Your task to perform on an android device: uninstall "Grab" Image 0: 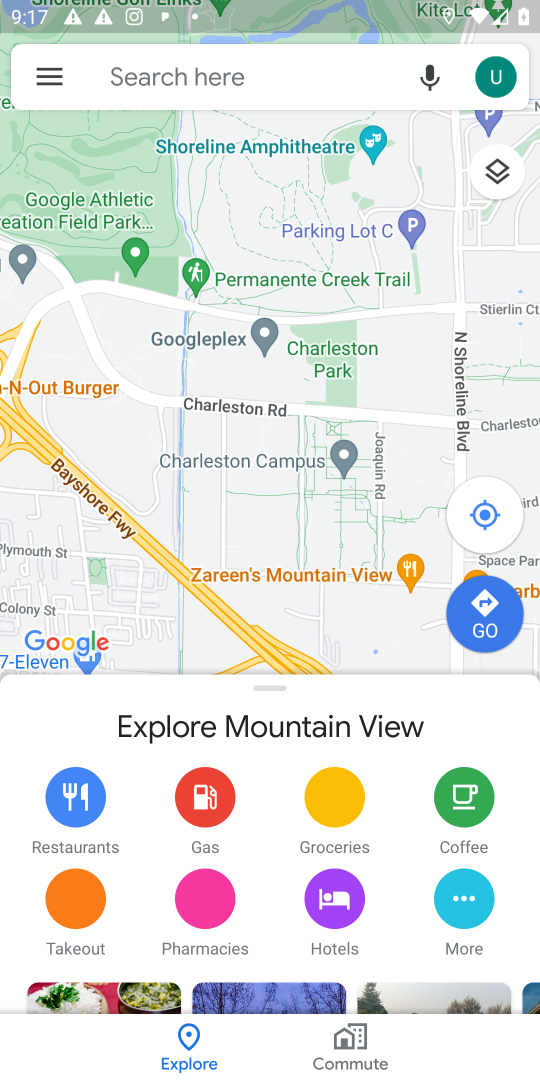
Step 0: press home button
Your task to perform on an android device: uninstall "Grab" Image 1: 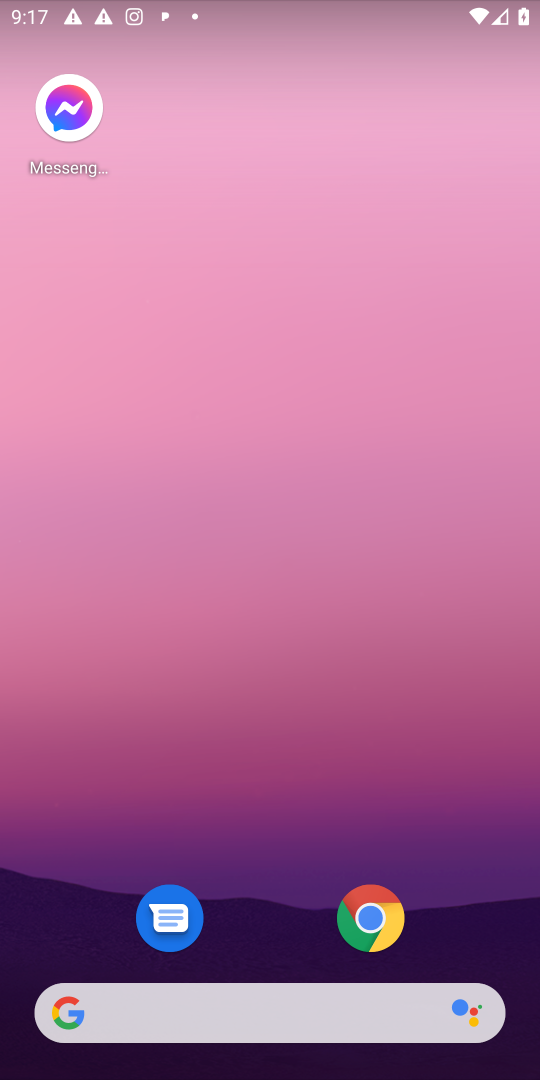
Step 1: press home button
Your task to perform on an android device: uninstall "Grab" Image 2: 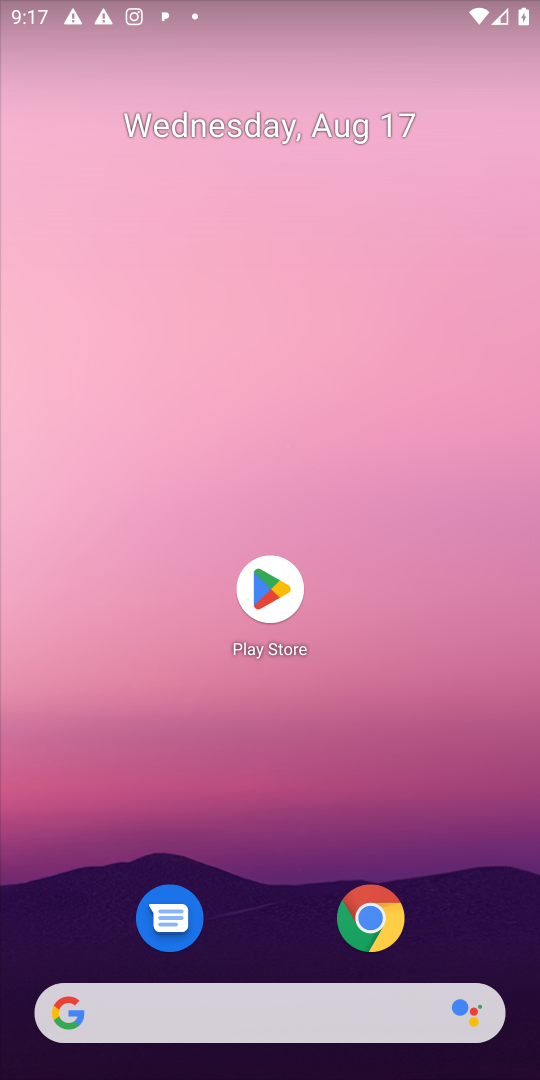
Step 2: click (273, 593)
Your task to perform on an android device: uninstall "Grab" Image 3: 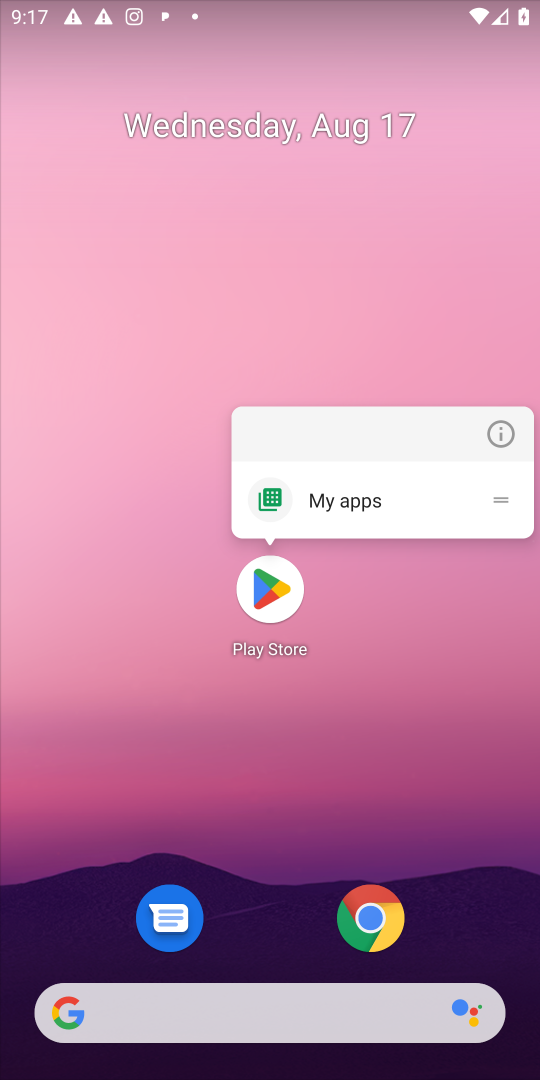
Step 3: click (263, 593)
Your task to perform on an android device: uninstall "Grab" Image 4: 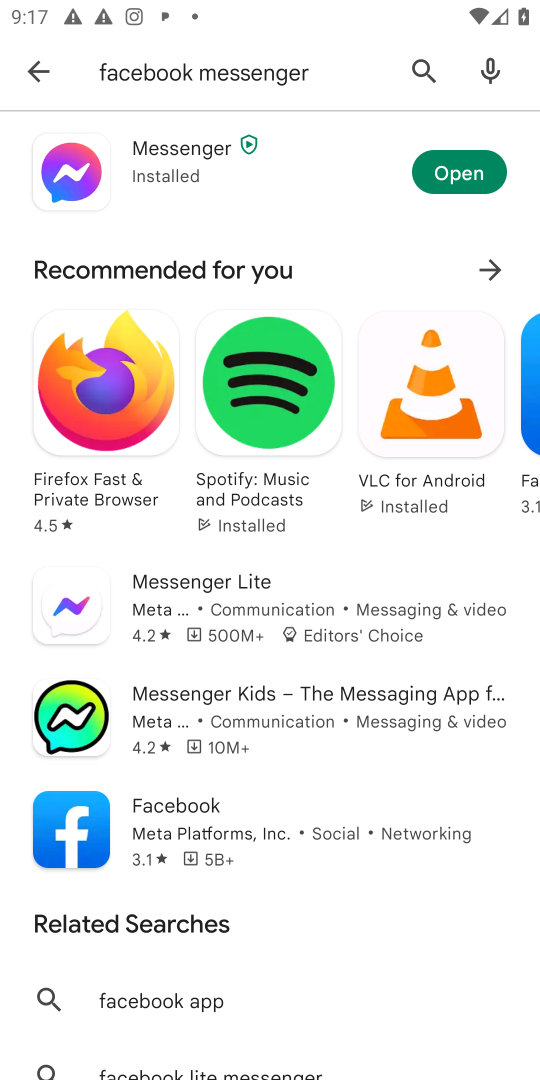
Step 4: click (419, 71)
Your task to perform on an android device: uninstall "Grab" Image 5: 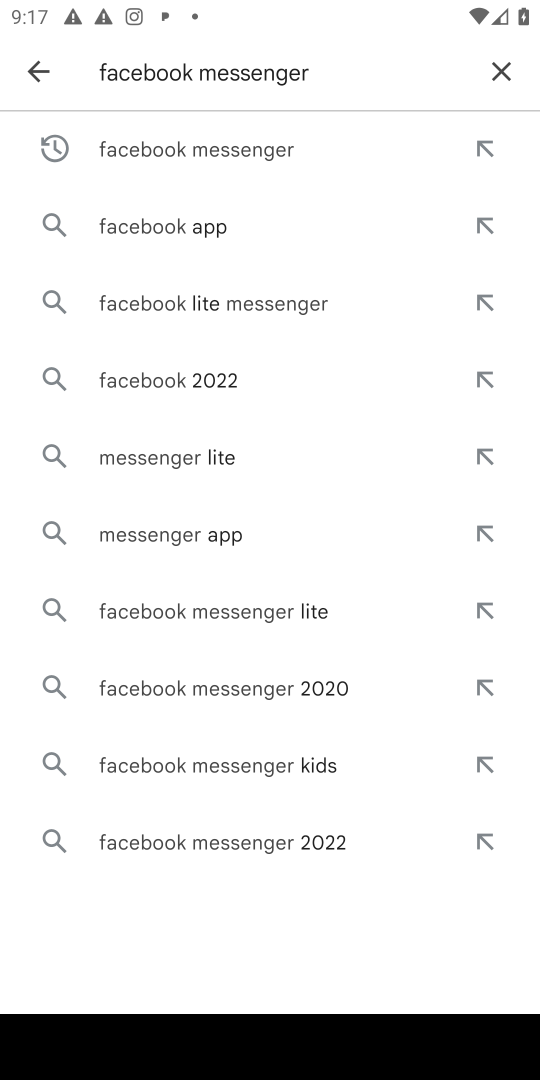
Step 5: click (498, 74)
Your task to perform on an android device: uninstall "Grab" Image 6: 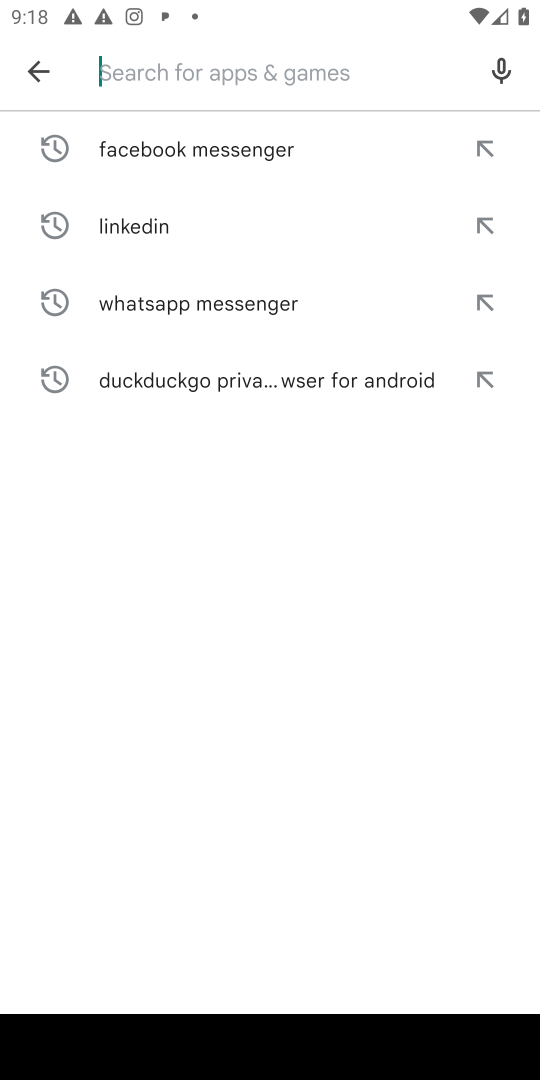
Step 6: type "Grab"
Your task to perform on an android device: uninstall "Grab" Image 7: 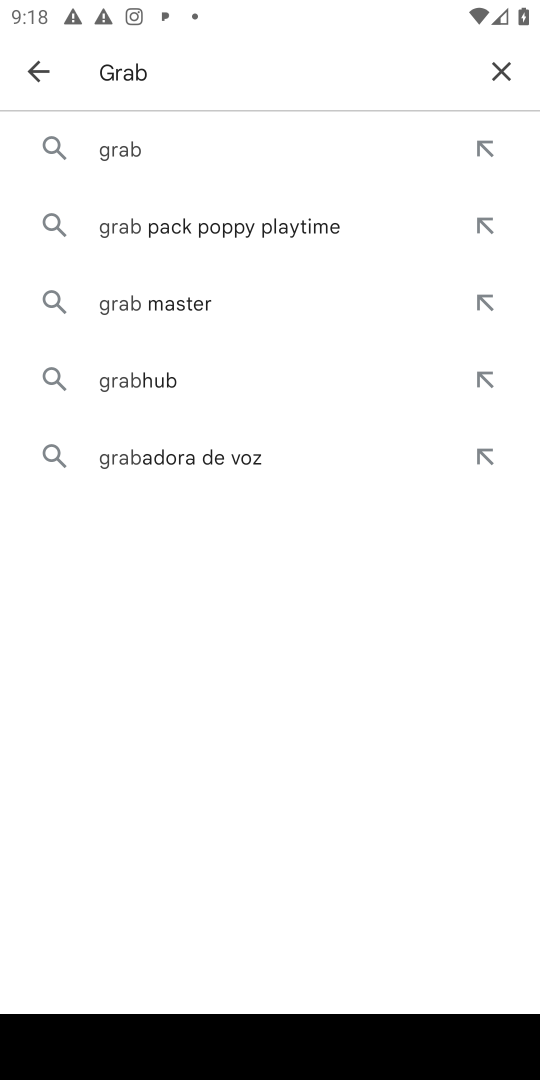
Step 7: click (125, 136)
Your task to perform on an android device: uninstall "Grab" Image 8: 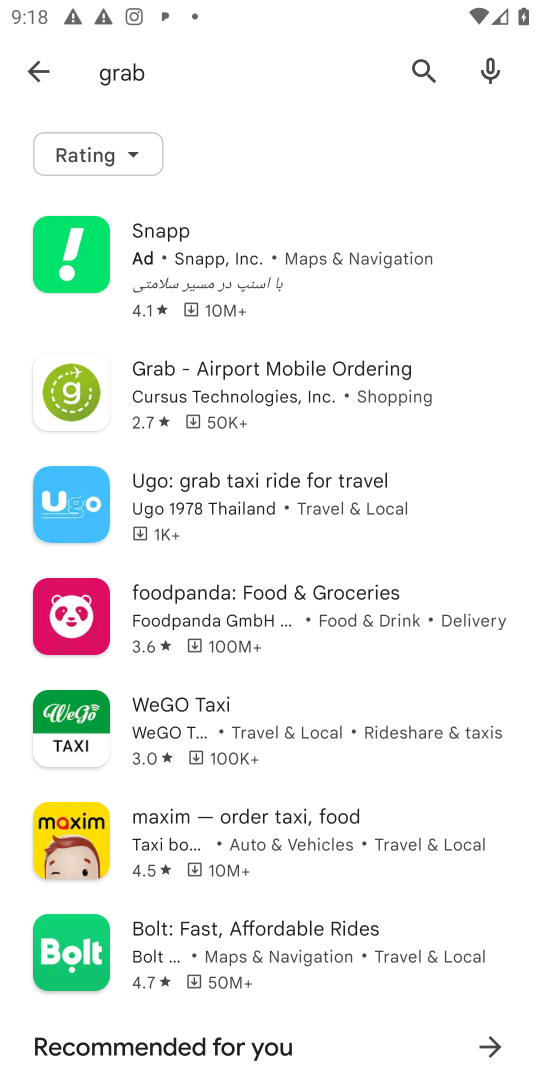
Step 8: click (229, 372)
Your task to perform on an android device: uninstall "Grab" Image 9: 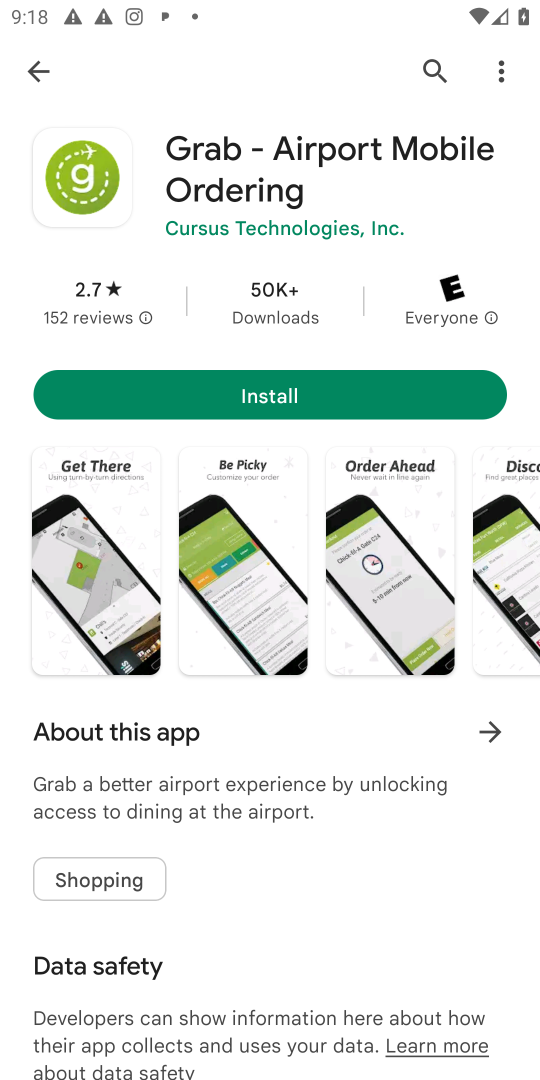
Step 9: task complete